Your task to perform on an android device: toggle translation in the chrome app Image 0: 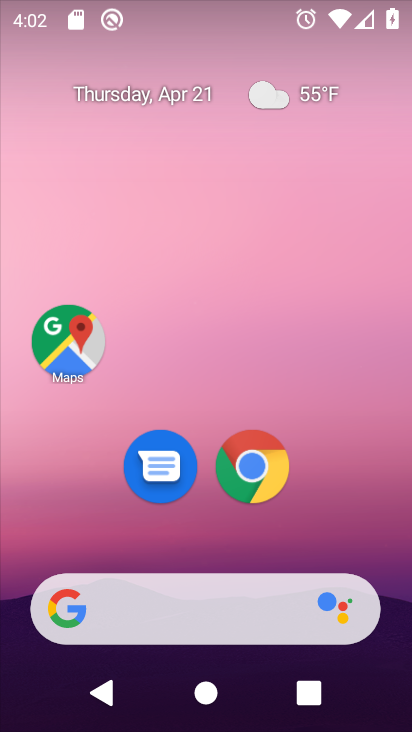
Step 0: click (253, 466)
Your task to perform on an android device: toggle translation in the chrome app Image 1: 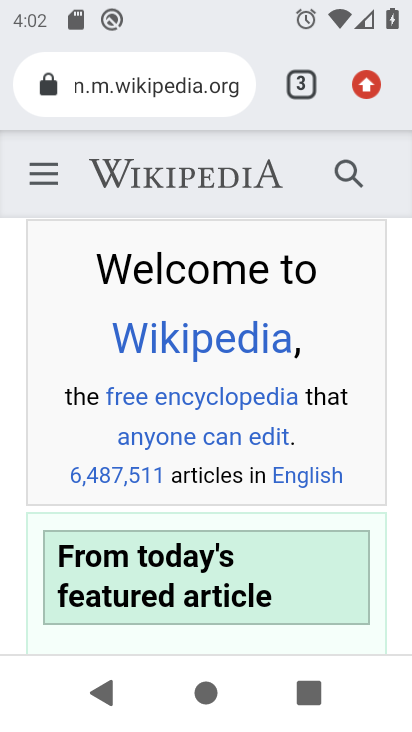
Step 1: task complete